Your task to perform on an android device: Is it going to rain this weekend? Image 0: 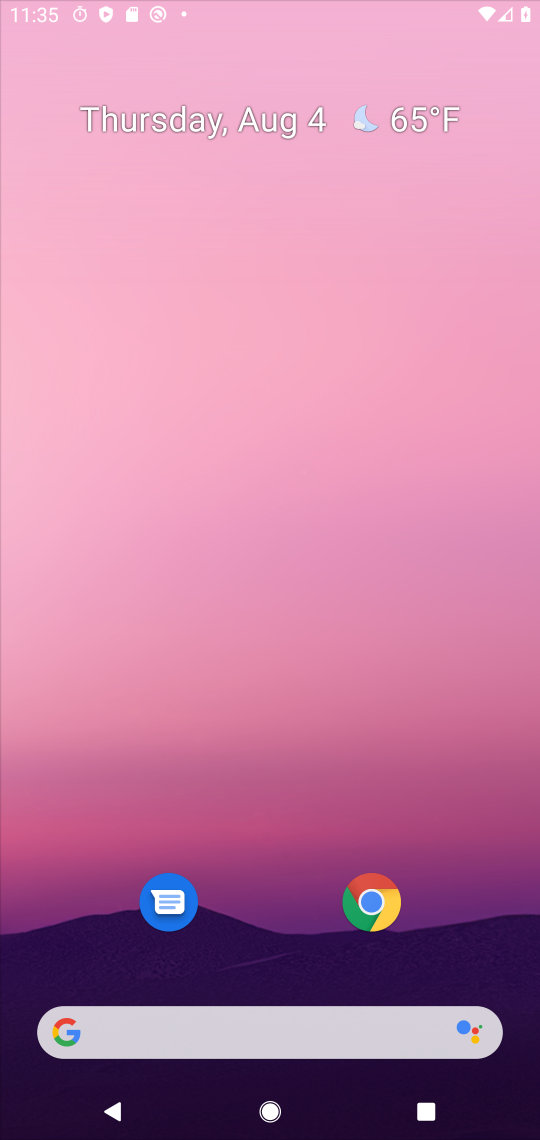
Step 0: press home button
Your task to perform on an android device: Is it going to rain this weekend? Image 1: 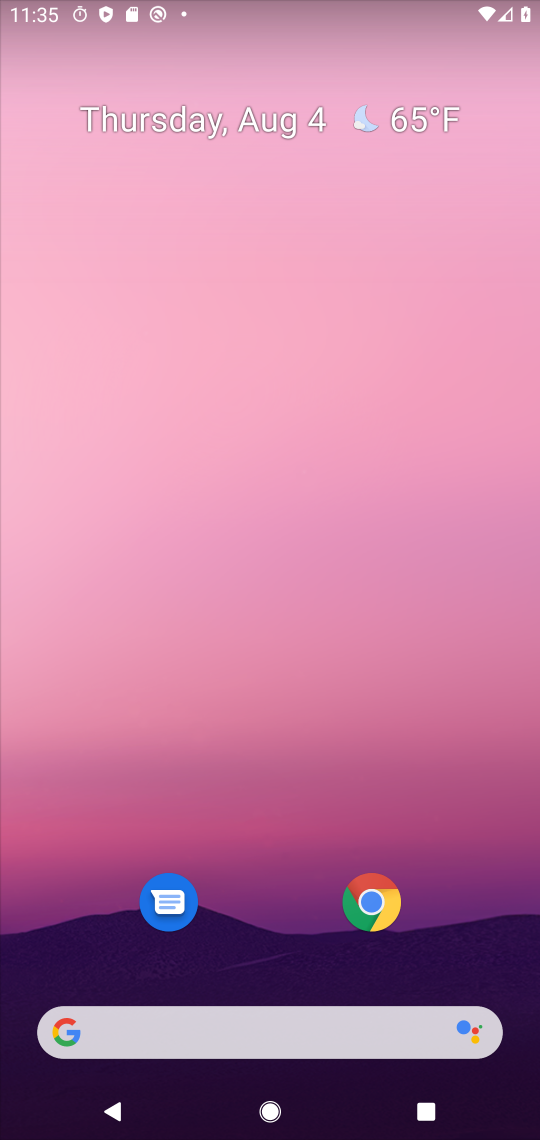
Step 1: click (288, 1014)
Your task to perform on an android device: Is it going to rain this weekend? Image 2: 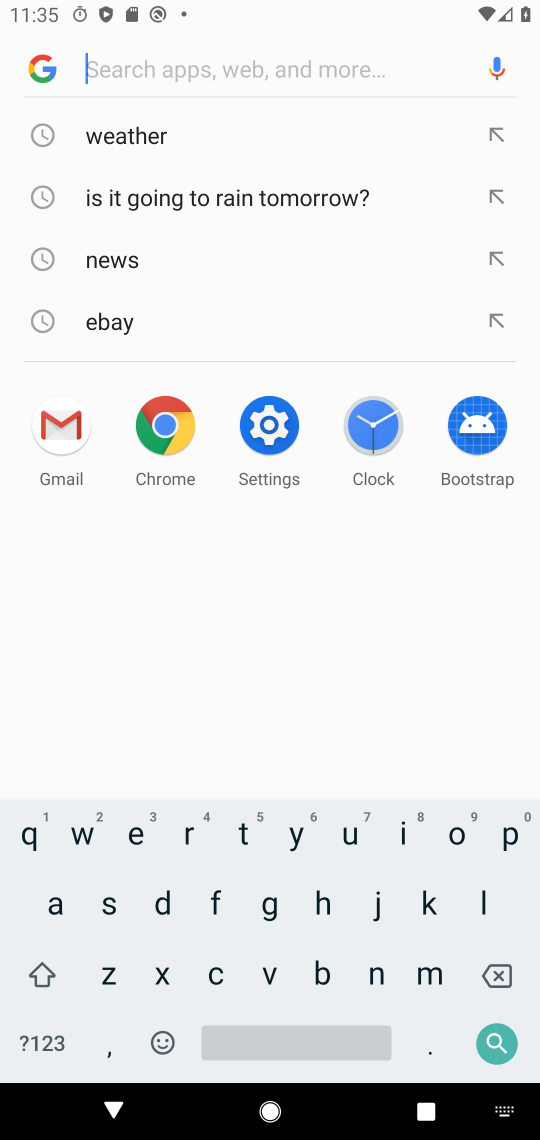
Step 2: click (395, 826)
Your task to perform on an android device: Is it going to rain this weekend? Image 3: 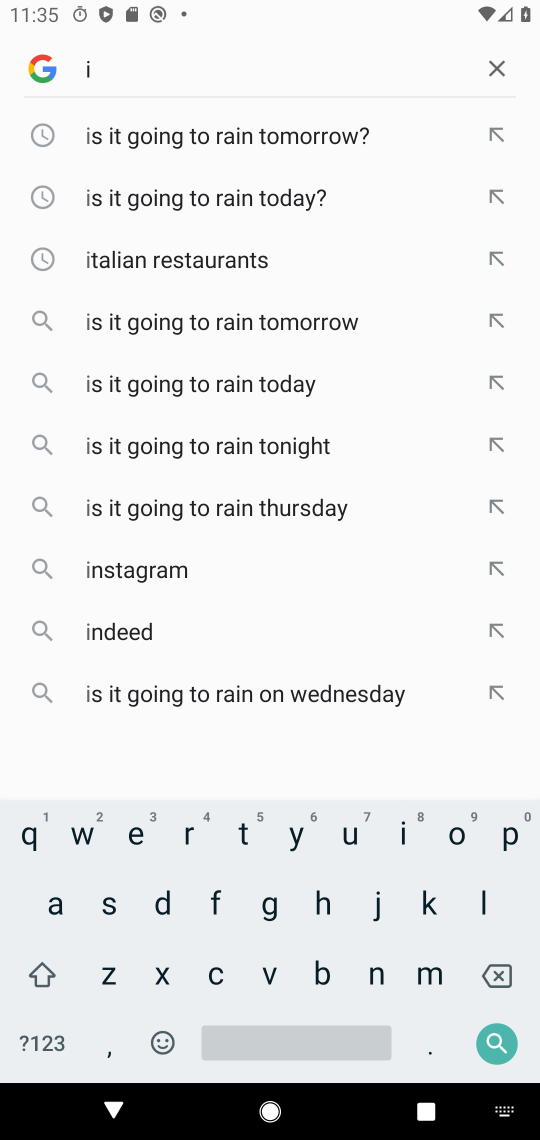
Step 3: click (103, 909)
Your task to perform on an android device: Is it going to rain this weekend? Image 4: 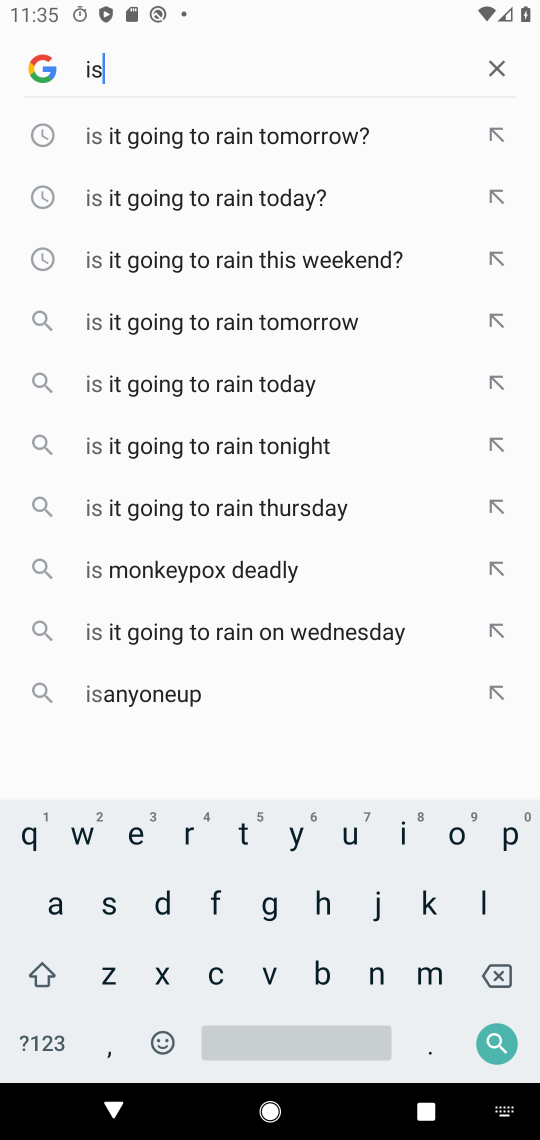
Step 4: click (288, 241)
Your task to perform on an android device: Is it going to rain this weekend? Image 5: 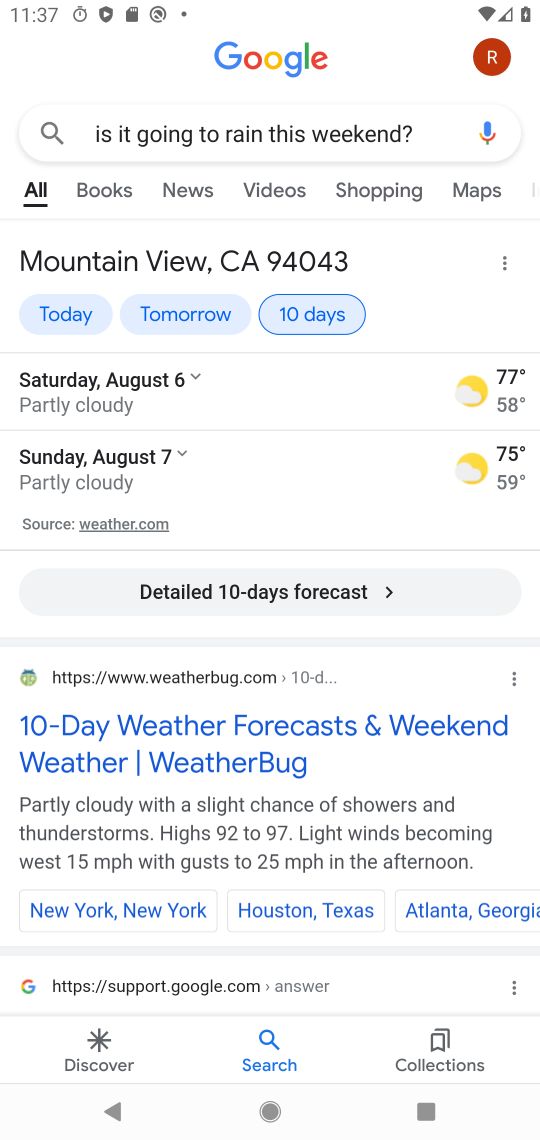
Step 5: task complete